Your task to perform on an android device: check storage Image 0: 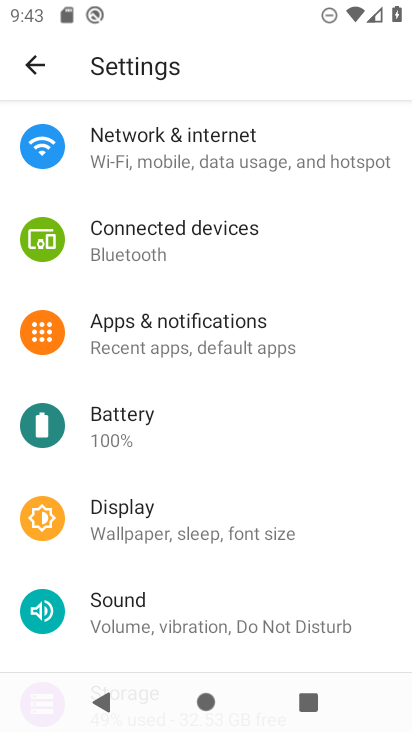
Step 0: drag from (161, 570) to (222, 202)
Your task to perform on an android device: check storage Image 1: 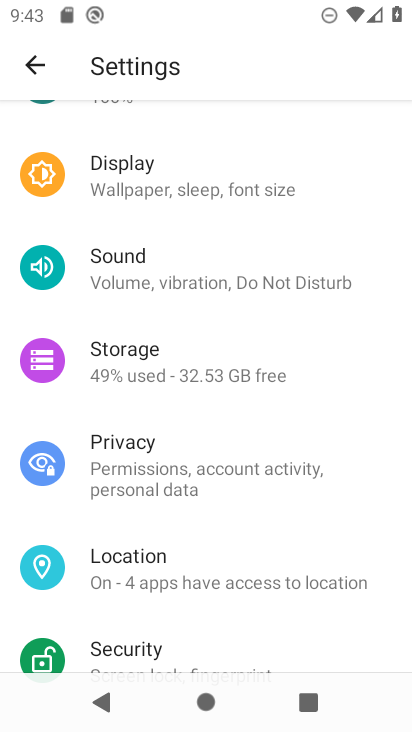
Step 1: click (190, 368)
Your task to perform on an android device: check storage Image 2: 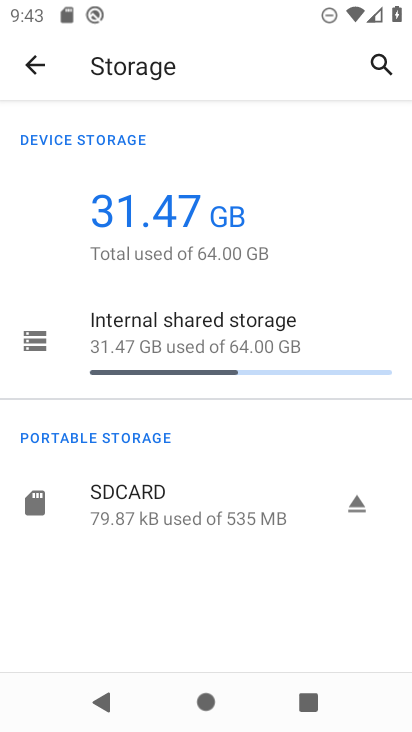
Step 2: click (268, 337)
Your task to perform on an android device: check storage Image 3: 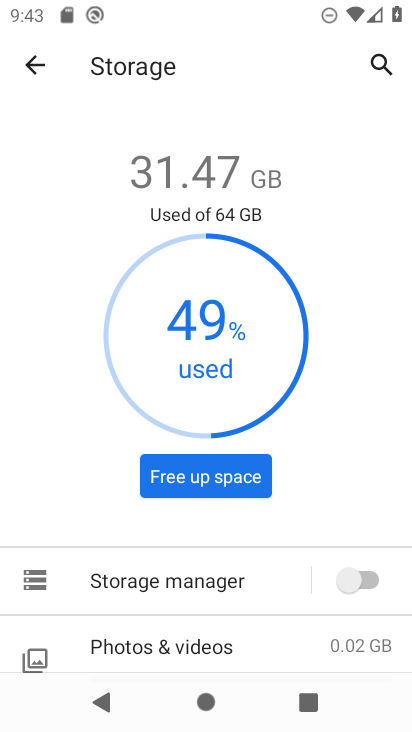
Step 3: task complete